Your task to perform on an android device: add a contact Image 0: 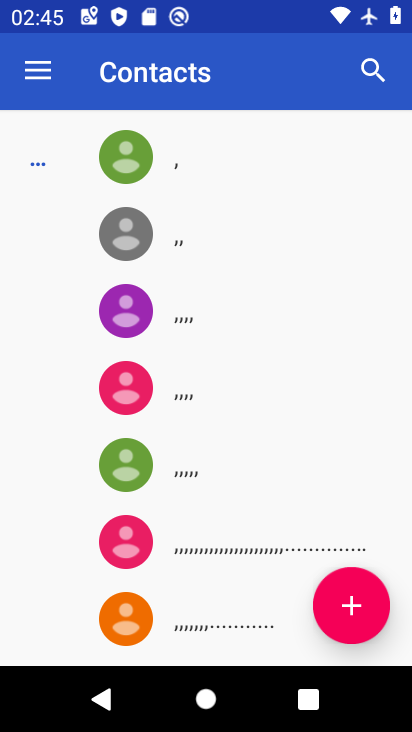
Step 0: click (367, 625)
Your task to perform on an android device: add a contact Image 1: 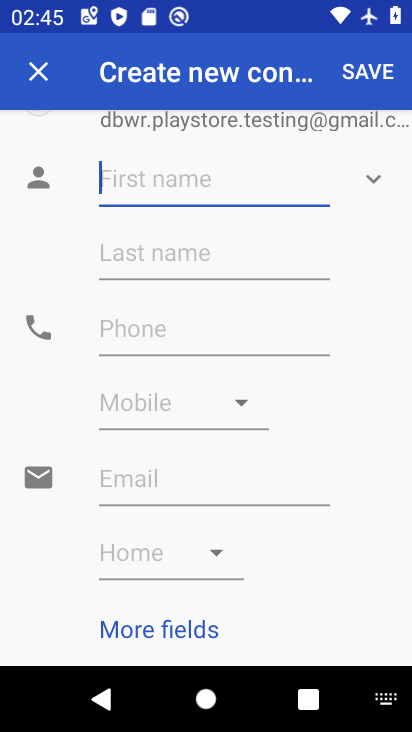
Step 1: type "som"
Your task to perform on an android device: add a contact Image 2: 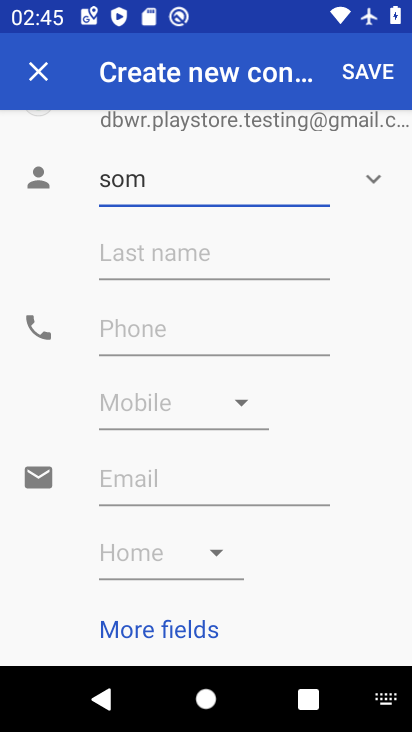
Step 2: click (167, 338)
Your task to perform on an android device: add a contact Image 3: 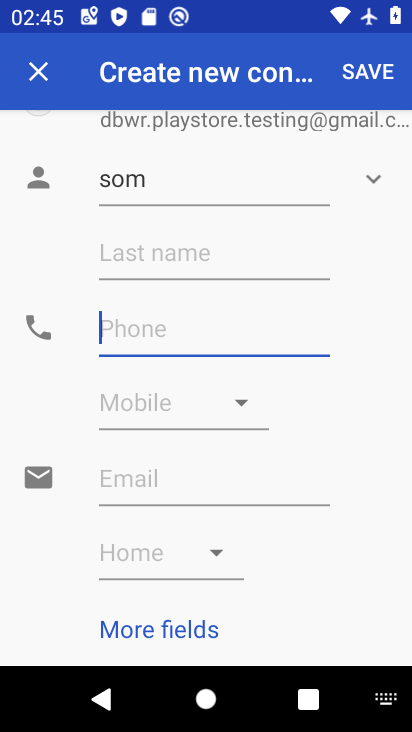
Step 3: type "7656564776"
Your task to perform on an android device: add a contact Image 4: 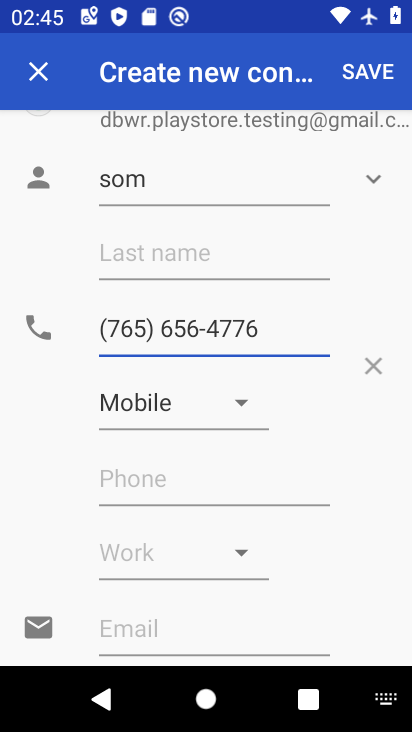
Step 4: click (375, 77)
Your task to perform on an android device: add a contact Image 5: 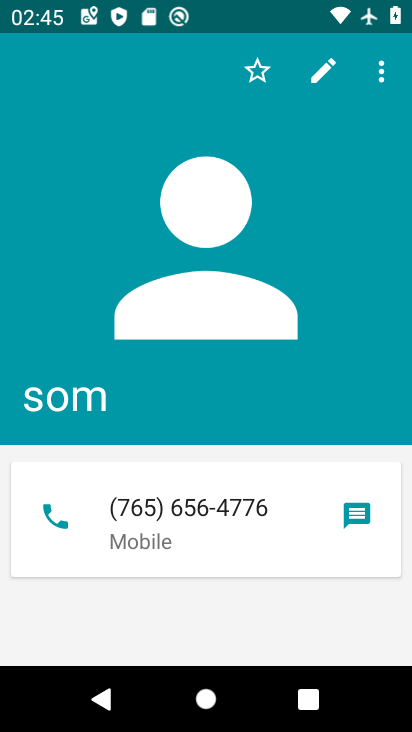
Step 5: task complete